Your task to perform on an android device: Open ESPN.com Image 0: 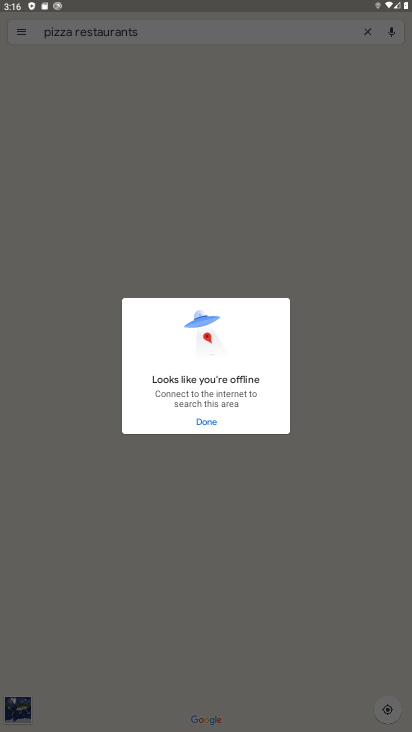
Step 0: press home button
Your task to perform on an android device: Open ESPN.com Image 1: 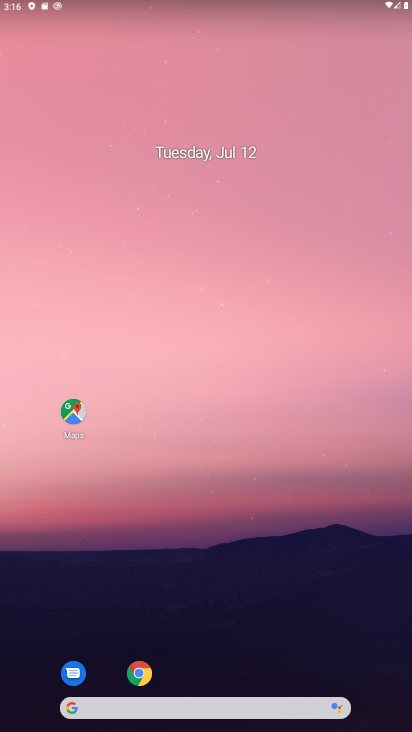
Step 1: click (139, 674)
Your task to perform on an android device: Open ESPN.com Image 2: 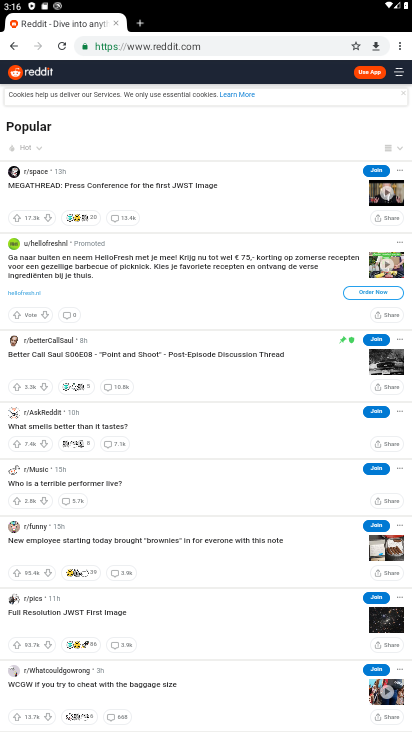
Step 2: click (229, 50)
Your task to perform on an android device: Open ESPN.com Image 3: 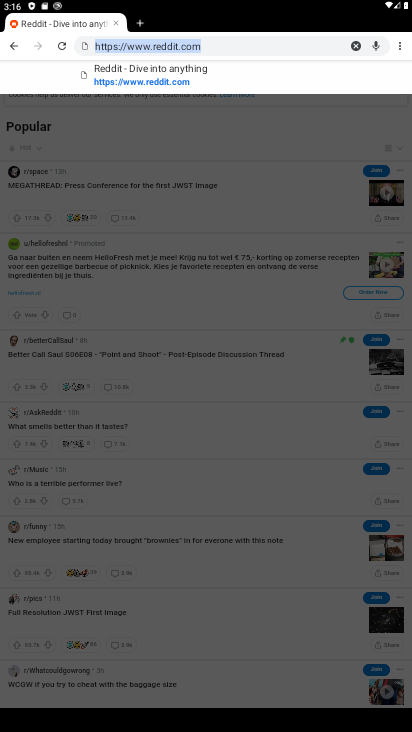
Step 3: type "ESPN.com"
Your task to perform on an android device: Open ESPN.com Image 4: 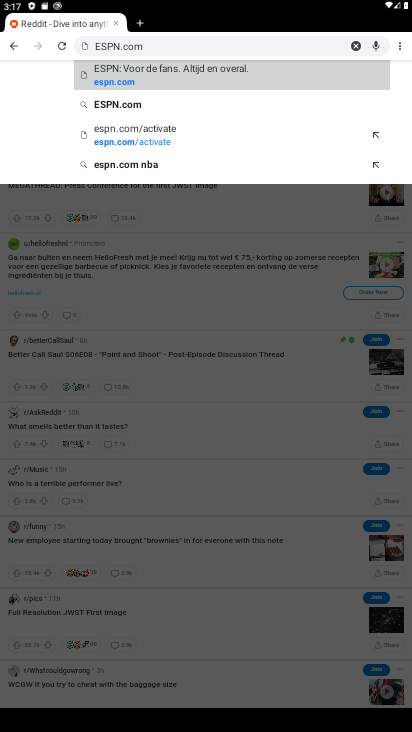
Step 4: click (131, 101)
Your task to perform on an android device: Open ESPN.com Image 5: 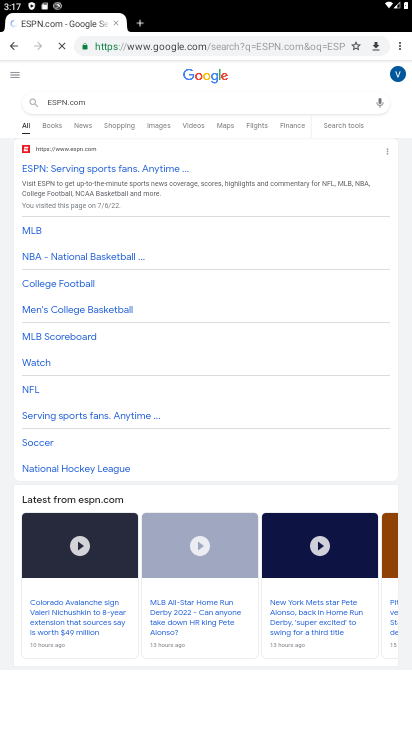
Step 5: click (77, 174)
Your task to perform on an android device: Open ESPN.com Image 6: 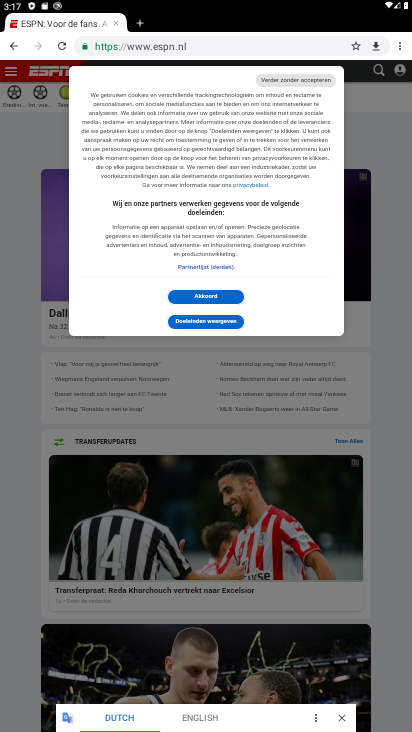
Step 6: click (205, 295)
Your task to perform on an android device: Open ESPN.com Image 7: 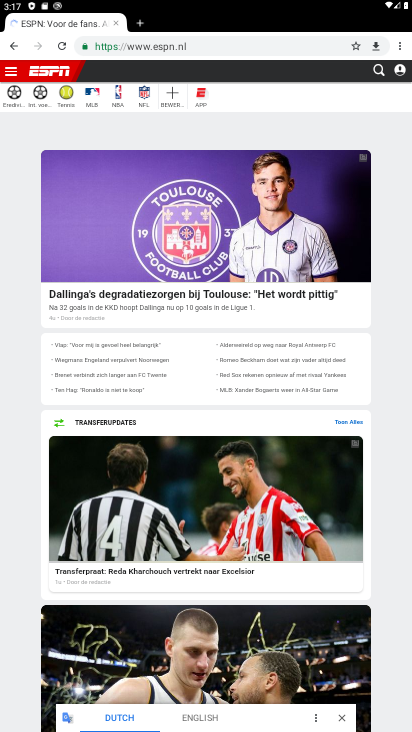
Step 7: task complete